Your task to perform on an android device: turn off improve location accuracy Image 0: 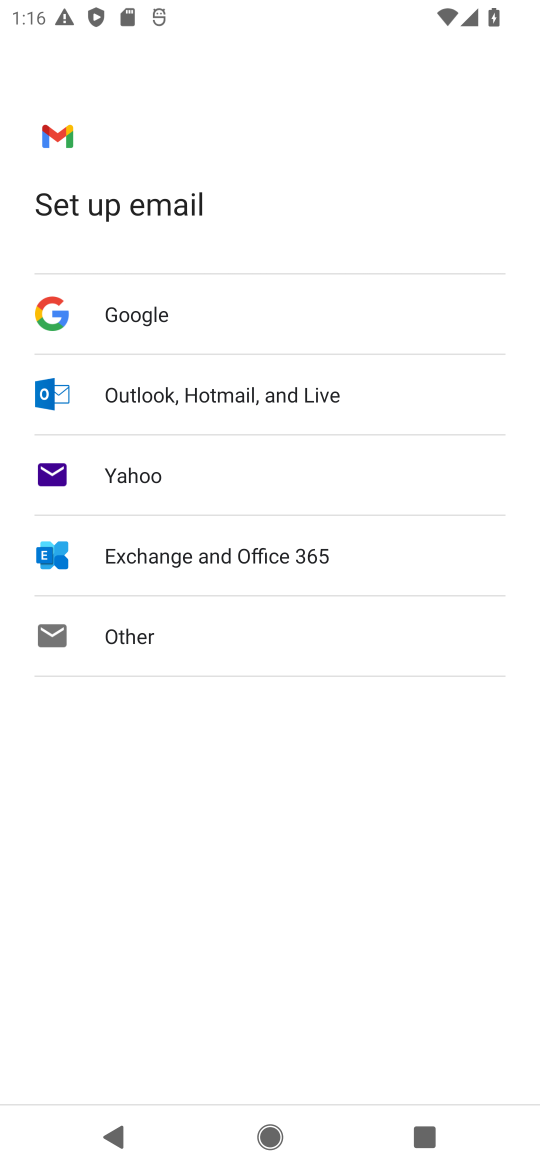
Step 0: press back button
Your task to perform on an android device: turn off improve location accuracy Image 1: 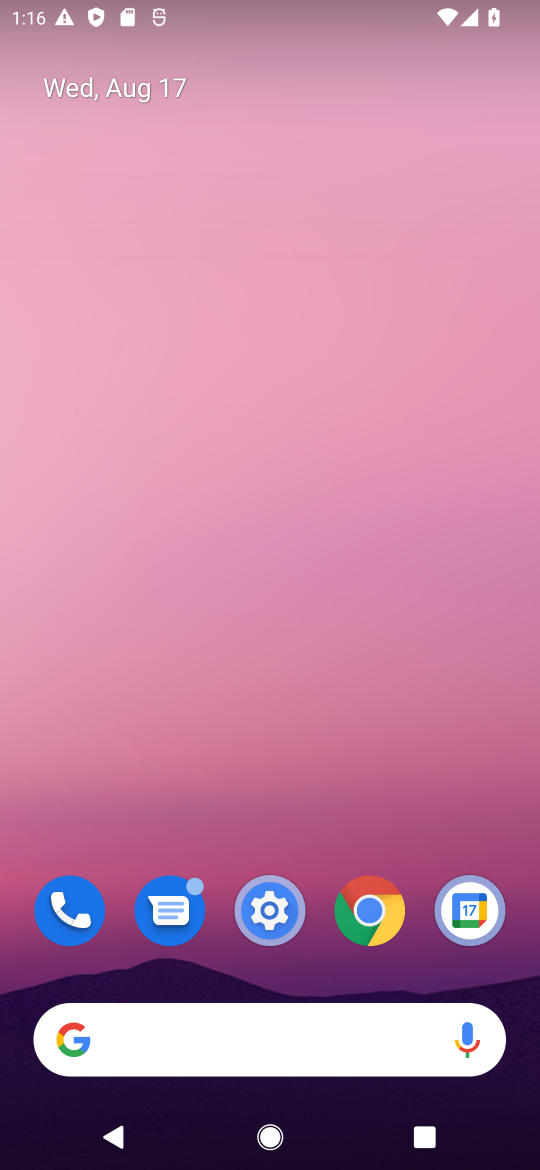
Step 1: click (264, 908)
Your task to perform on an android device: turn off improve location accuracy Image 2: 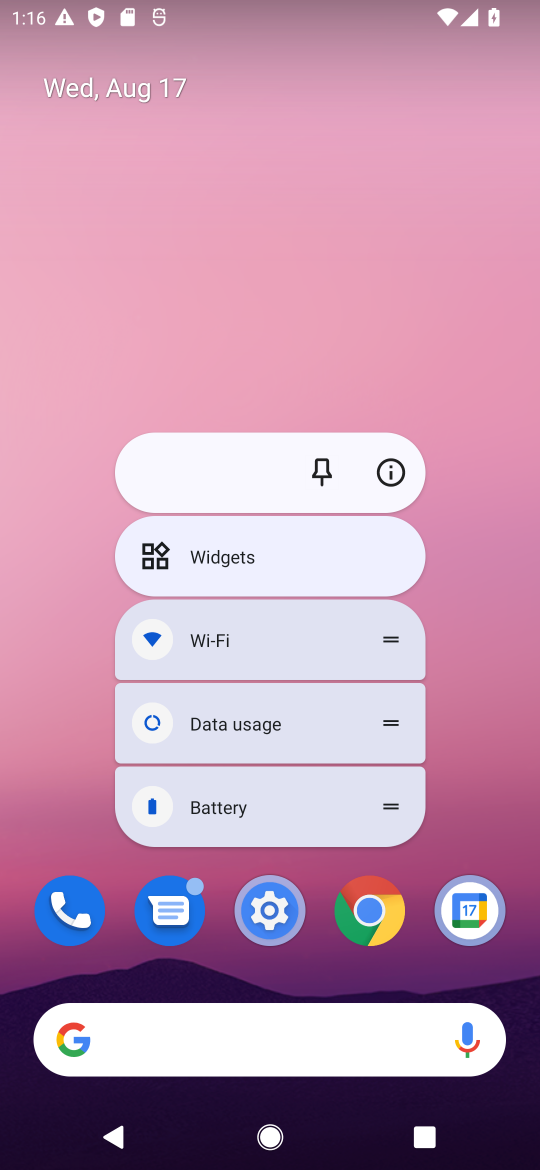
Step 2: click (265, 917)
Your task to perform on an android device: turn off improve location accuracy Image 3: 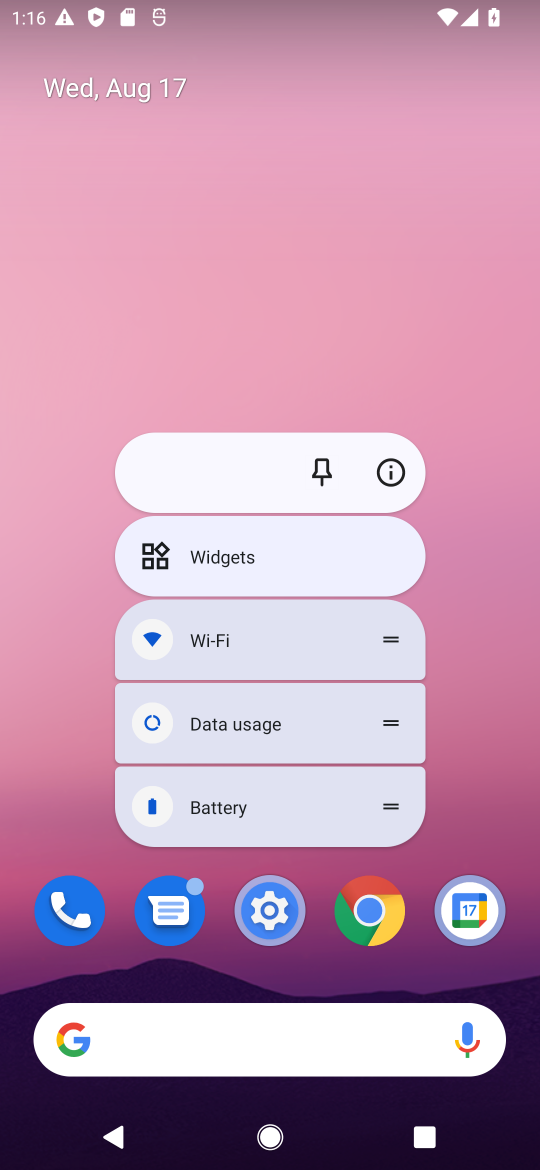
Step 3: click (279, 907)
Your task to perform on an android device: turn off improve location accuracy Image 4: 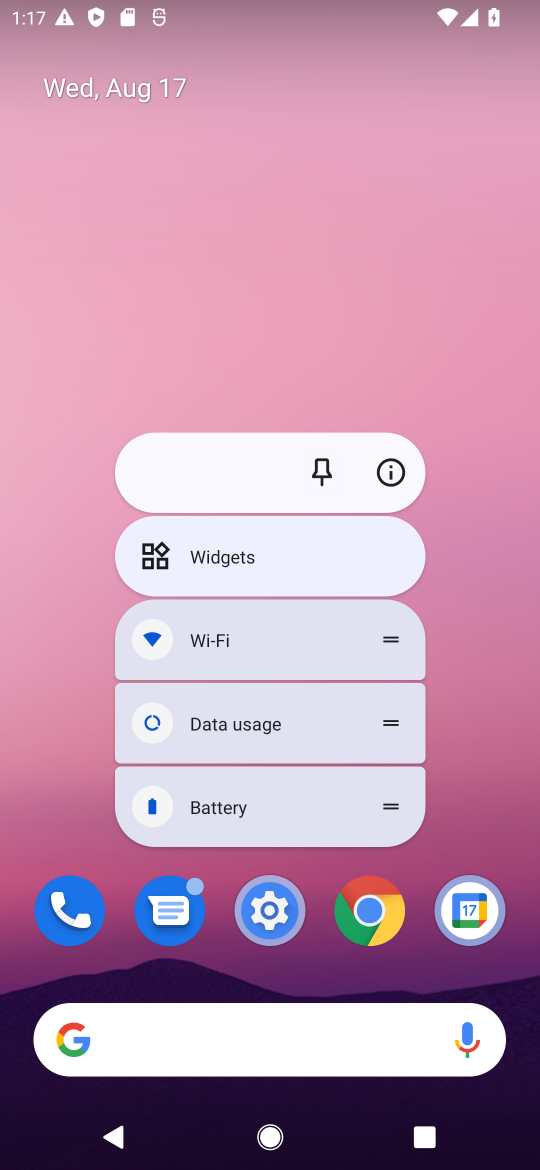
Step 4: click (271, 904)
Your task to perform on an android device: turn off improve location accuracy Image 5: 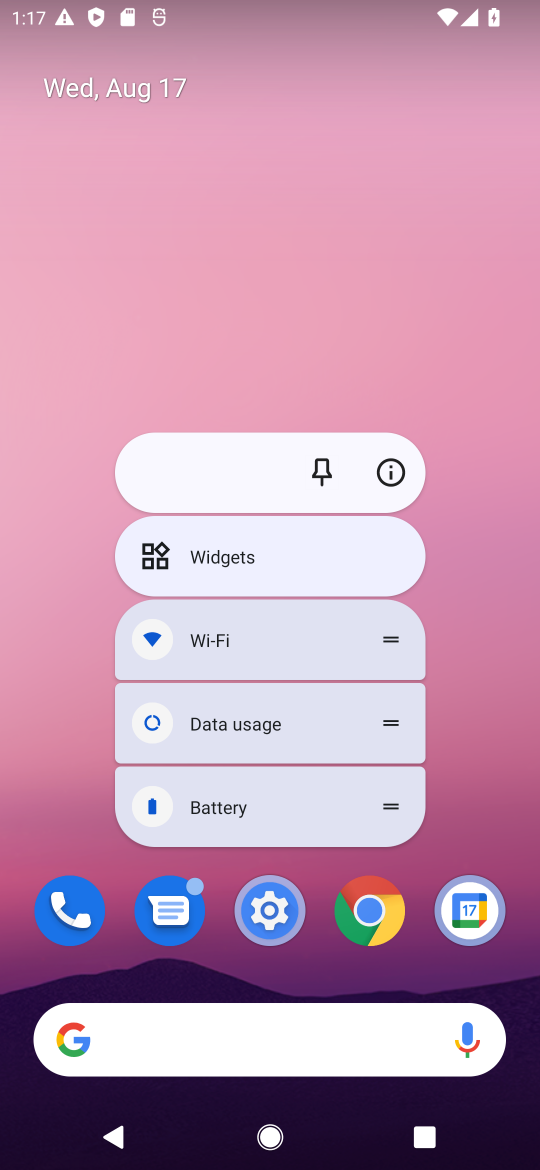
Step 5: click (271, 904)
Your task to perform on an android device: turn off improve location accuracy Image 6: 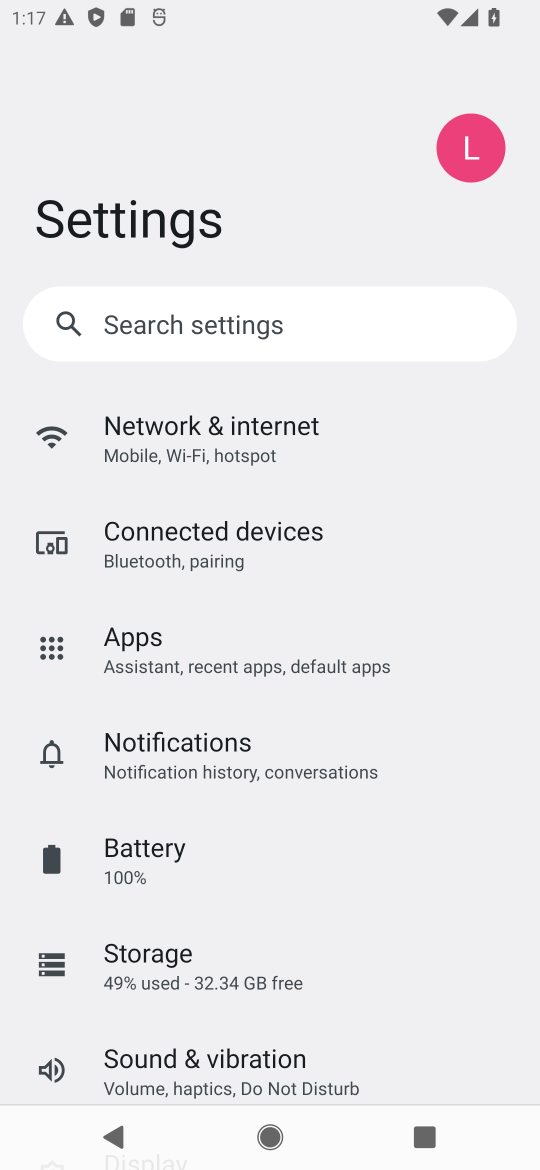
Step 6: drag from (235, 1046) to (379, 195)
Your task to perform on an android device: turn off improve location accuracy Image 7: 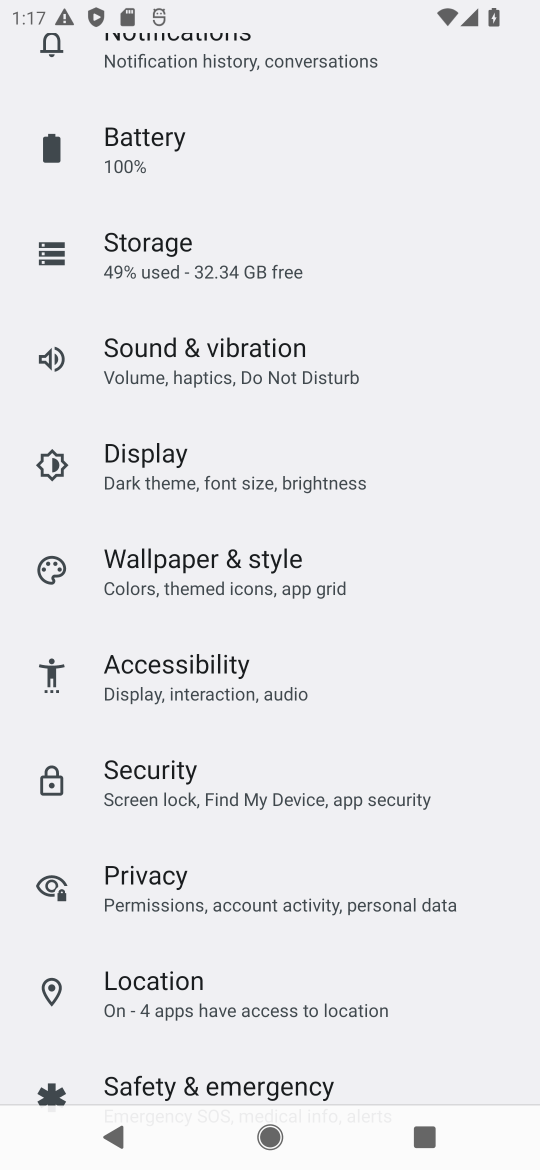
Step 7: click (149, 1006)
Your task to perform on an android device: turn off improve location accuracy Image 8: 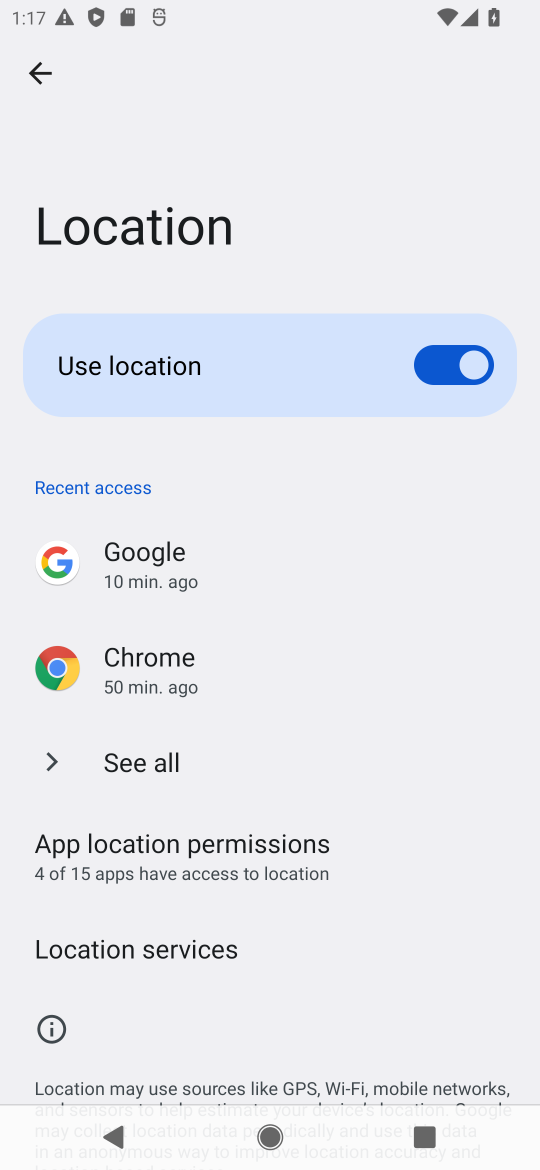
Step 8: drag from (191, 1000) to (290, 189)
Your task to perform on an android device: turn off improve location accuracy Image 9: 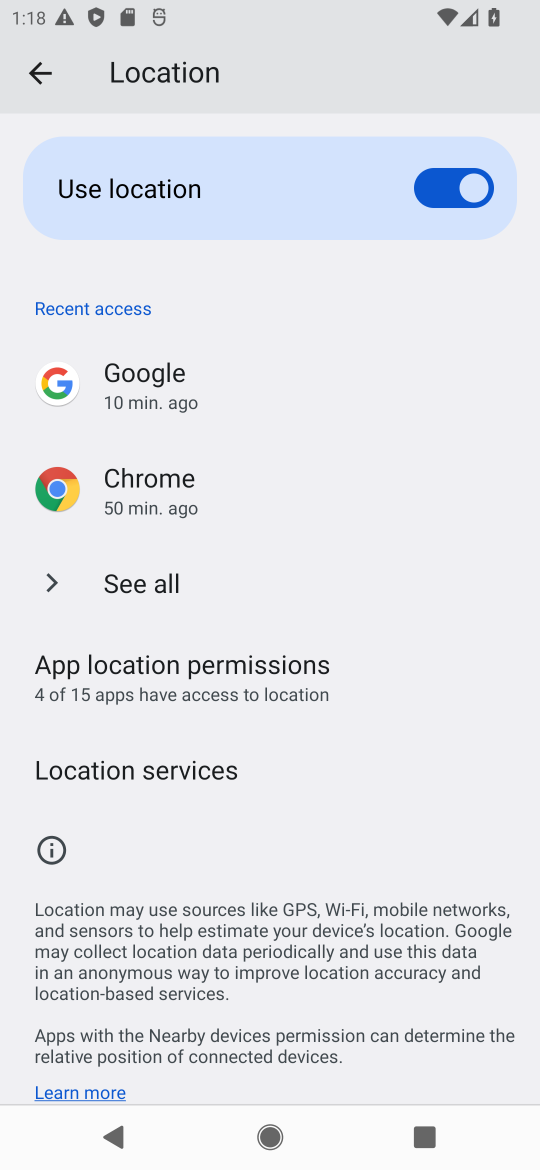
Step 9: click (133, 756)
Your task to perform on an android device: turn off improve location accuracy Image 10: 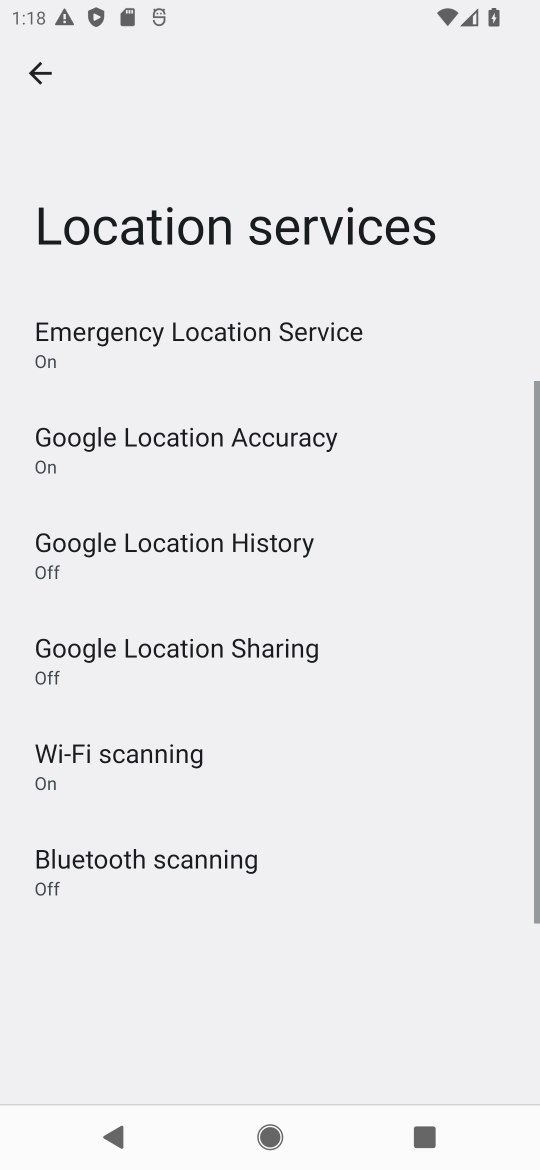
Step 10: click (196, 447)
Your task to perform on an android device: turn off improve location accuracy Image 11: 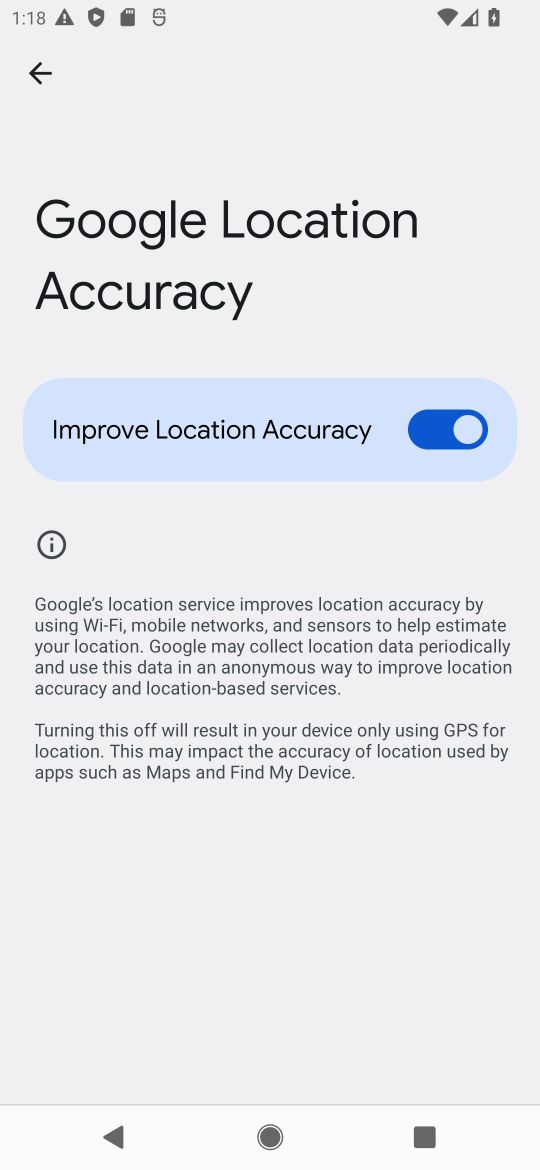
Step 11: click (466, 427)
Your task to perform on an android device: turn off improve location accuracy Image 12: 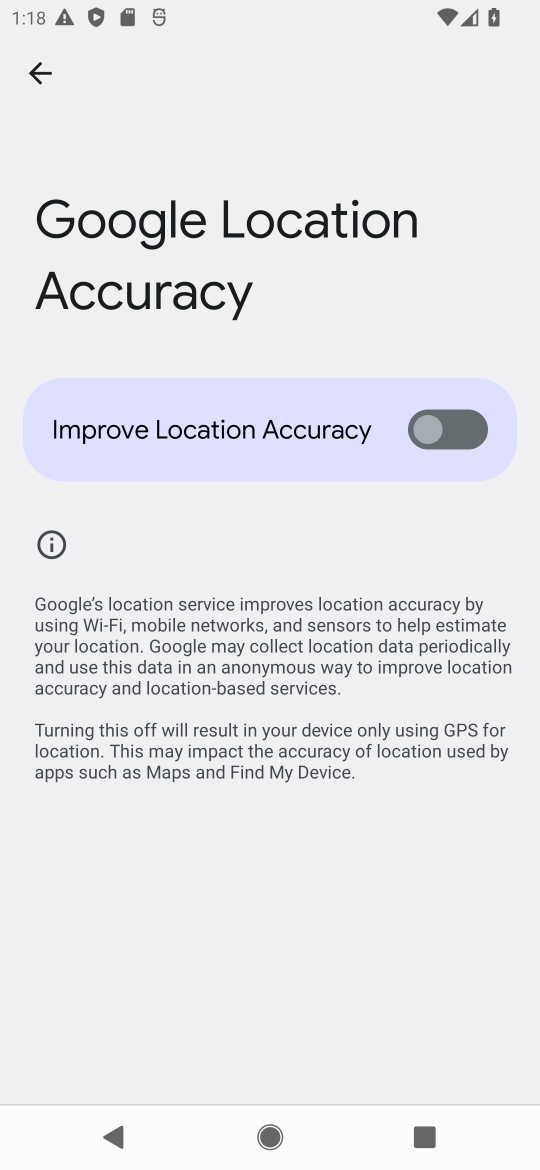
Step 12: task complete